Your task to perform on an android device: Open eBay Image 0: 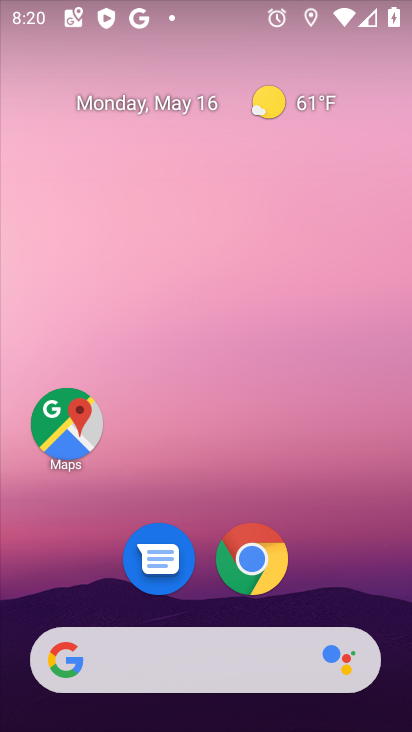
Step 0: drag from (374, 574) to (376, 147)
Your task to perform on an android device: Open eBay Image 1: 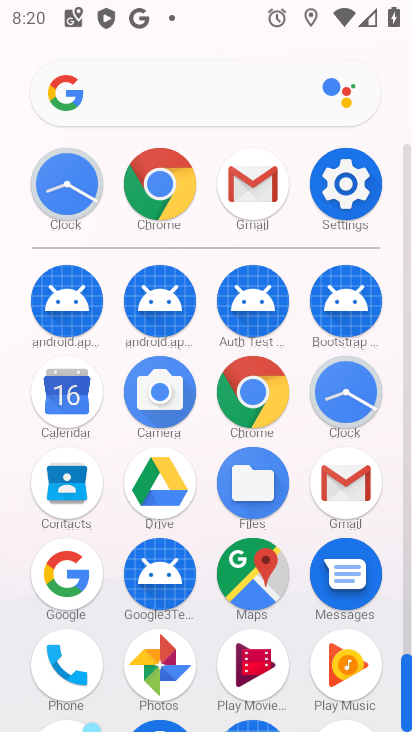
Step 1: click (268, 387)
Your task to perform on an android device: Open eBay Image 2: 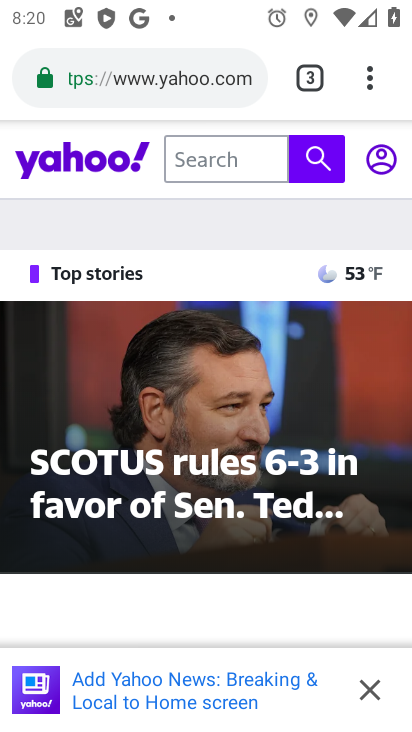
Step 2: click (129, 78)
Your task to perform on an android device: Open eBay Image 3: 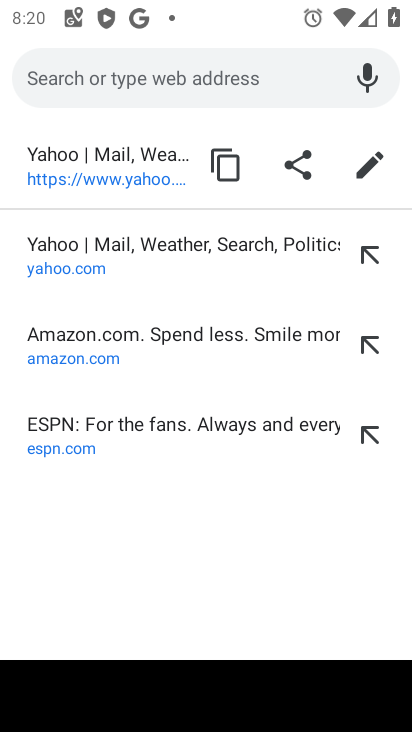
Step 3: type "ebay"
Your task to perform on an android device: Open eBay Image 4: 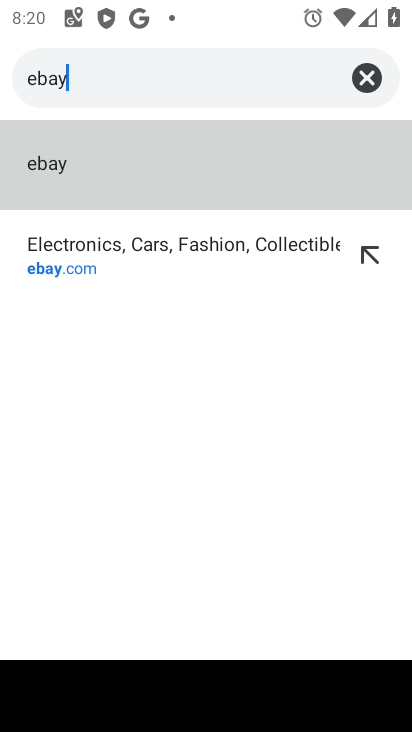
Step 4: click (250, 196)
Your task to perform on an android device: Open eBay Image 5: 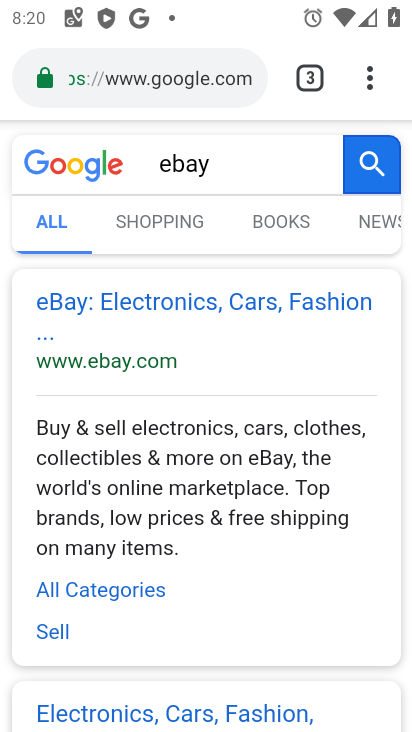
Step 5: click (246, 308)
Your task to perform on an android device: Open eBay Image 6: 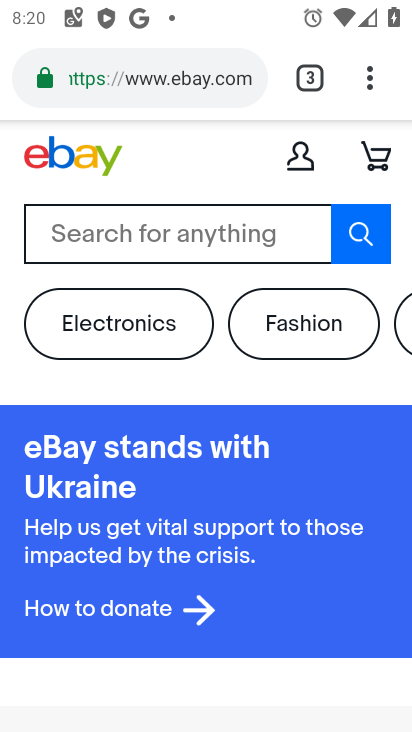
Step 6: task complete